Your task to perform on an android device: Open privacy settings Image 0: 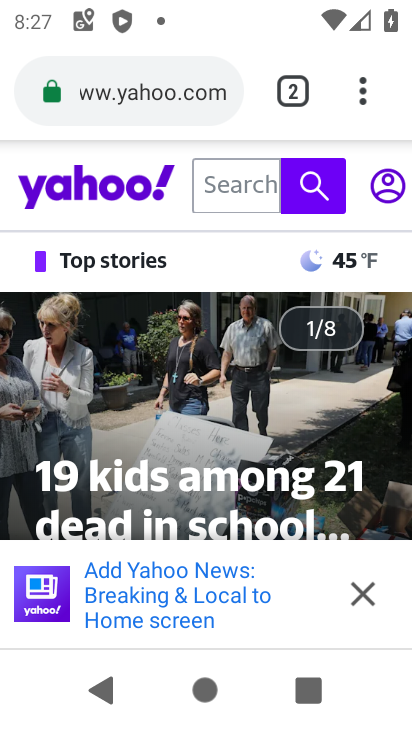
Step 0: press home button
Your task to perform on an android device: Open privacy settings Image 1: 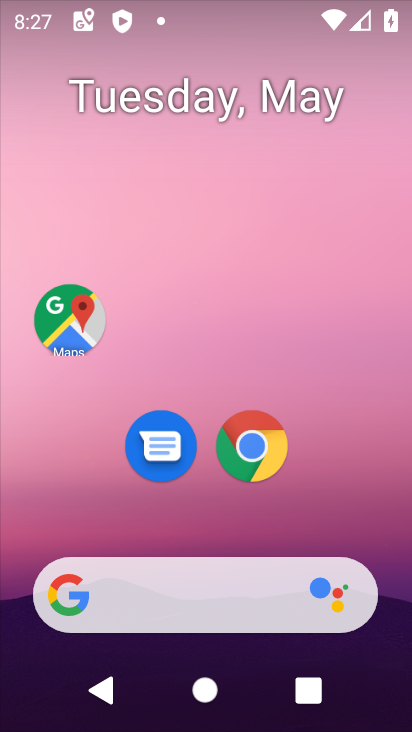
Step 1: drag from (345, 542) to (304, 5)
Your task to perform on an android device: Open privacy settings Image 2: 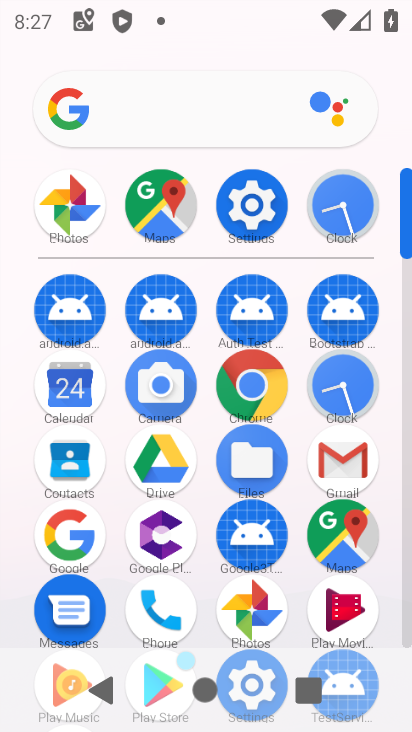
Step 2: click (256, 204)
Your task to perform on an android device: Open privacy settings Image 3: 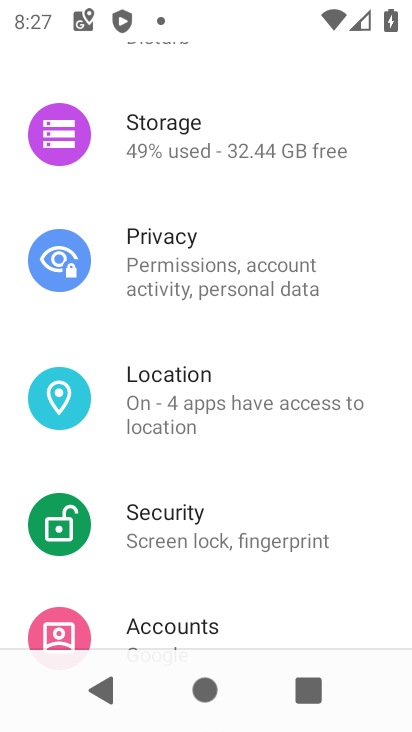
Step 3: click (170, 262)
Your task to perform on an android device: Open privacy settings Image 4: 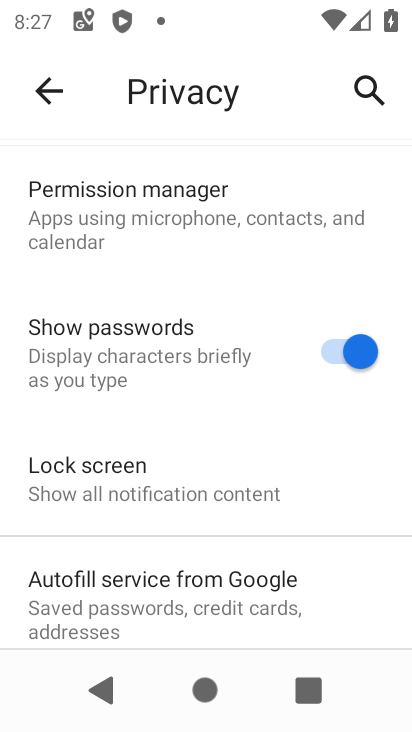
Step 4: task complete